Your task to perform on an android device: Go to Android settings Image 0: 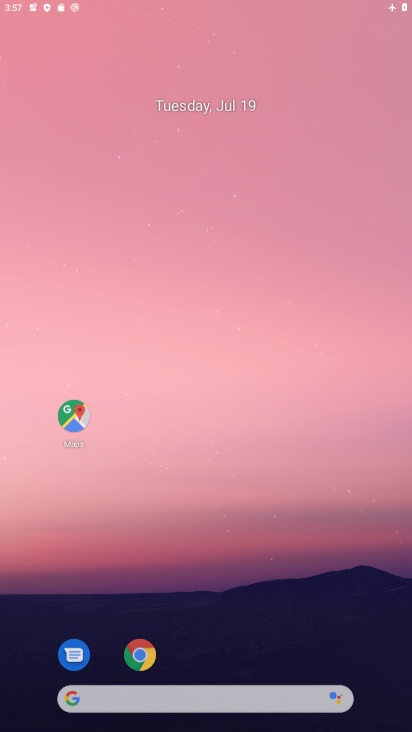
Step 0: drag from (336, 619) to (385, 0)
Your task to perform on an android device: Go to Android settings Image 1: 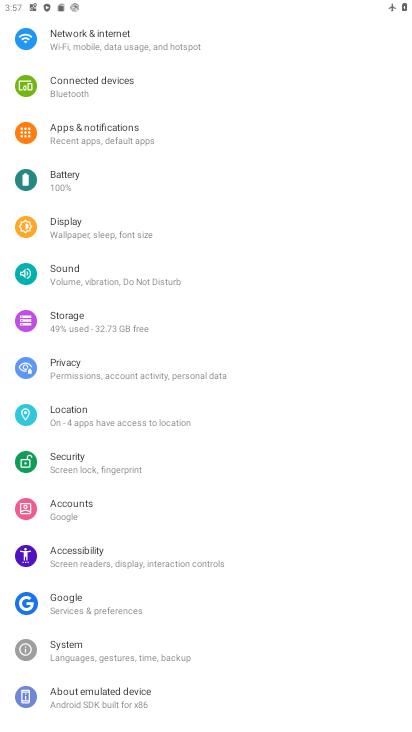
Step 1: press home button
Your task to perform on an android device: Go to Android settings Image 2: 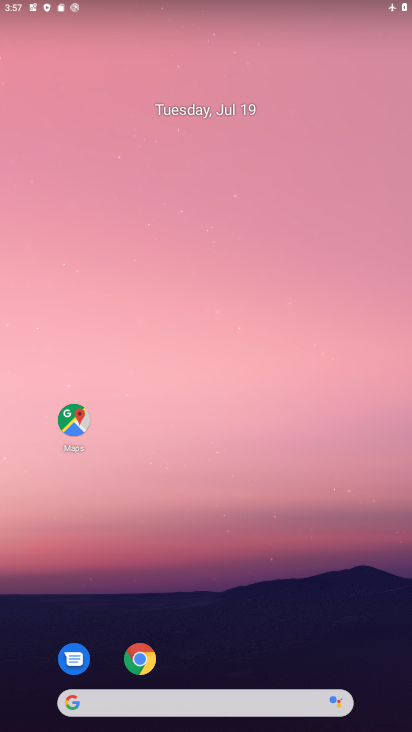
Step 2: drag from (254, 636) to (266, 32)
Your task to perform on an android device: Go to Android settings Image 3: 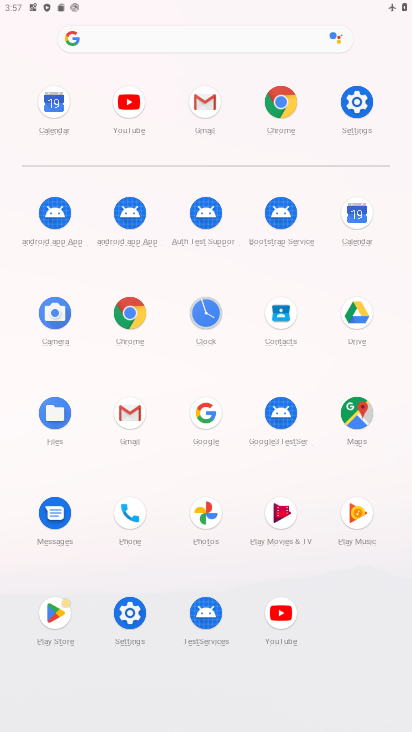
Step 3: click (356, 102)
Your task to perform on an android device: Go to Android settings Image 4: 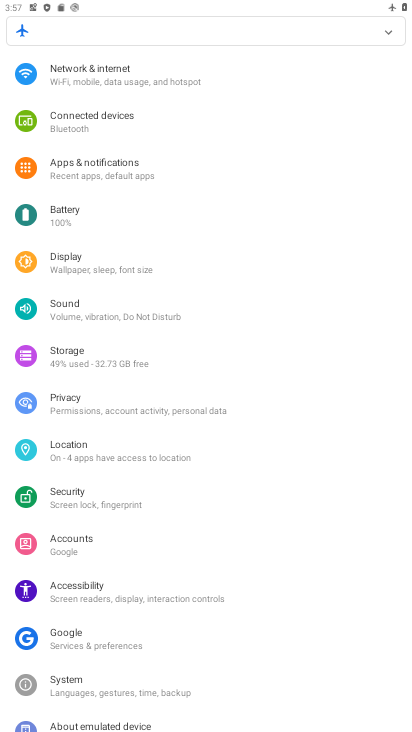
Step 4: task complete